Your task to perform on an android device: Go to Wikipedia Image 0: 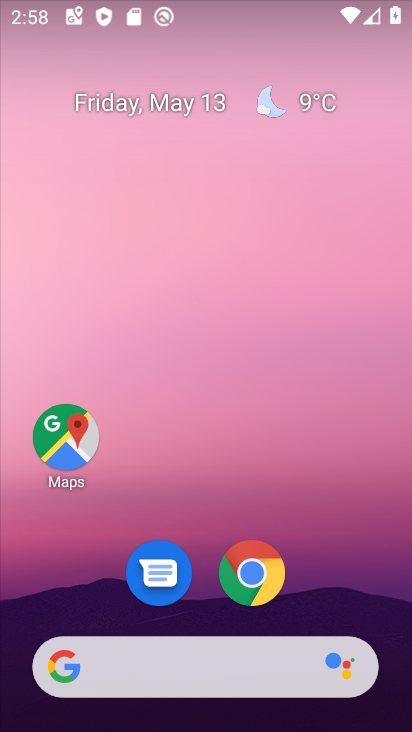
Step 0: click (248, 561)
Your task to perform on an android device: Go to Wikipedia Image 1: 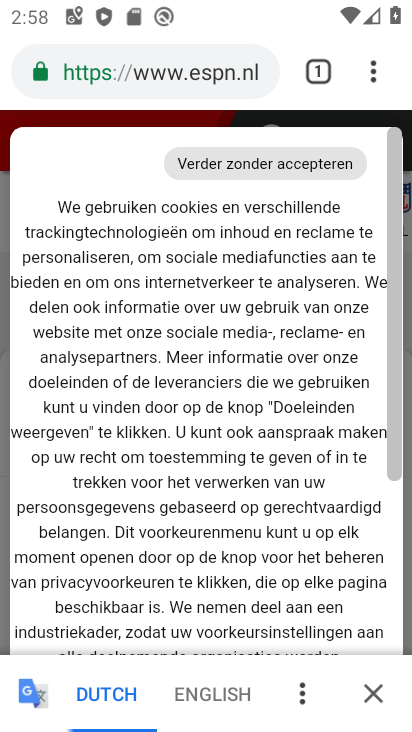
Step 1: task complete